Your task to perform on an android device: toggle javascript in the chrome app Image 0: 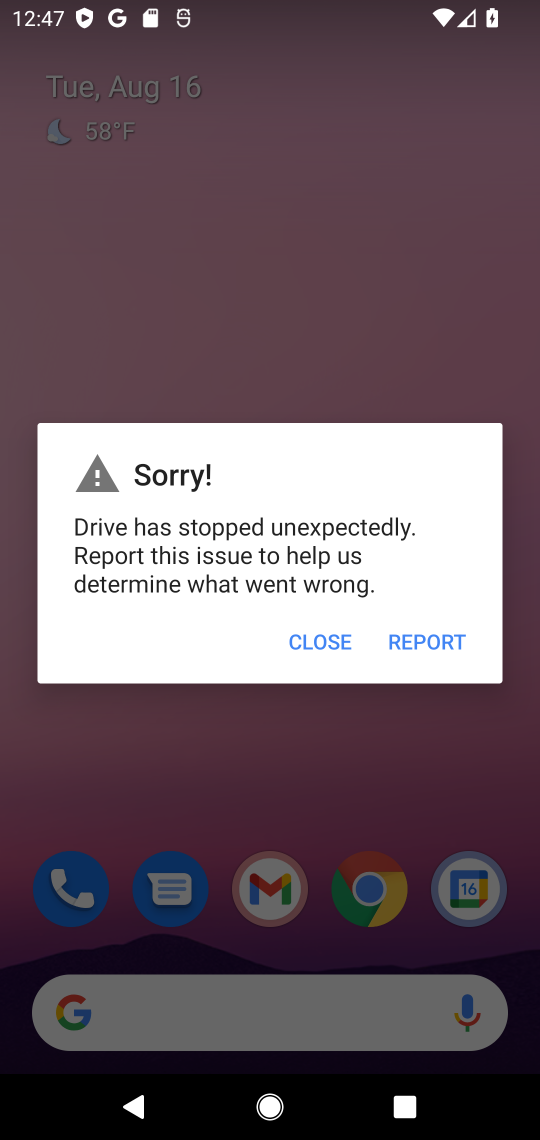
Step 0: click (322, 633)
Your task to perform on an android device: toggle javascript in the chrome app Image 1: 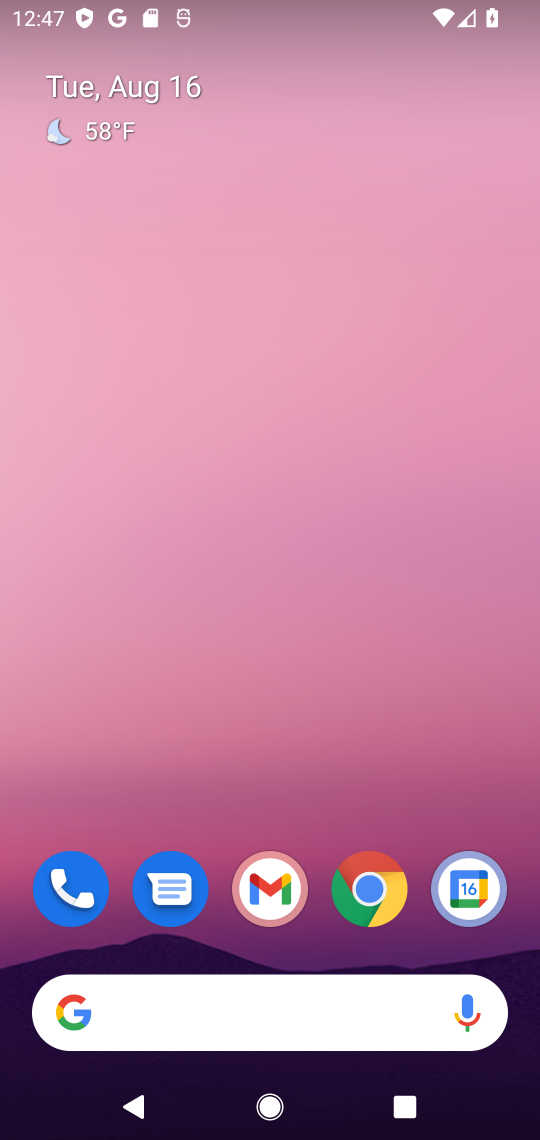
Step 1: drag from (236, 986) to (149, 85)
Your task to perform on an android device: toggle javascript in the chrome app Image 2: 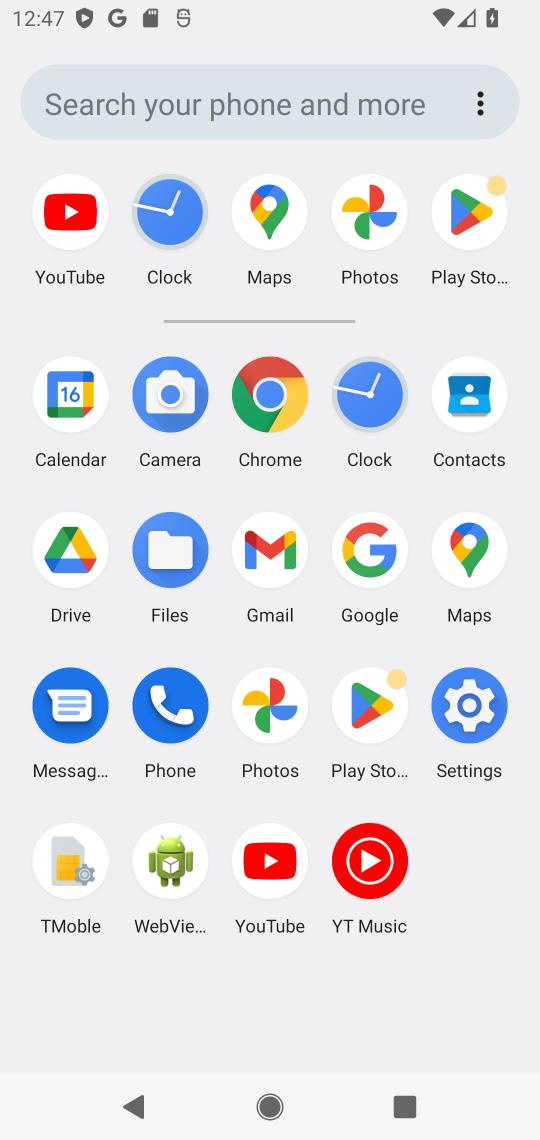
Step 2: click (257, 400)
Your task to perform on an android device: toggle javascript in the chrome app Image 3: 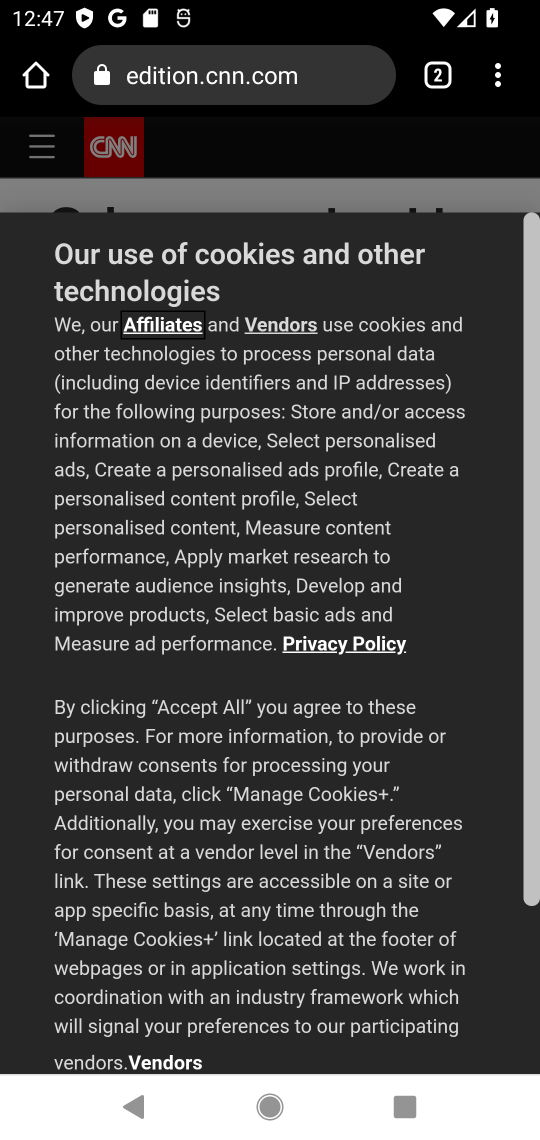
Step 3: drag from (490, 79) to (270, 911)
Your task to perform on an android device: toggle javascript in the chrome app Image 4: 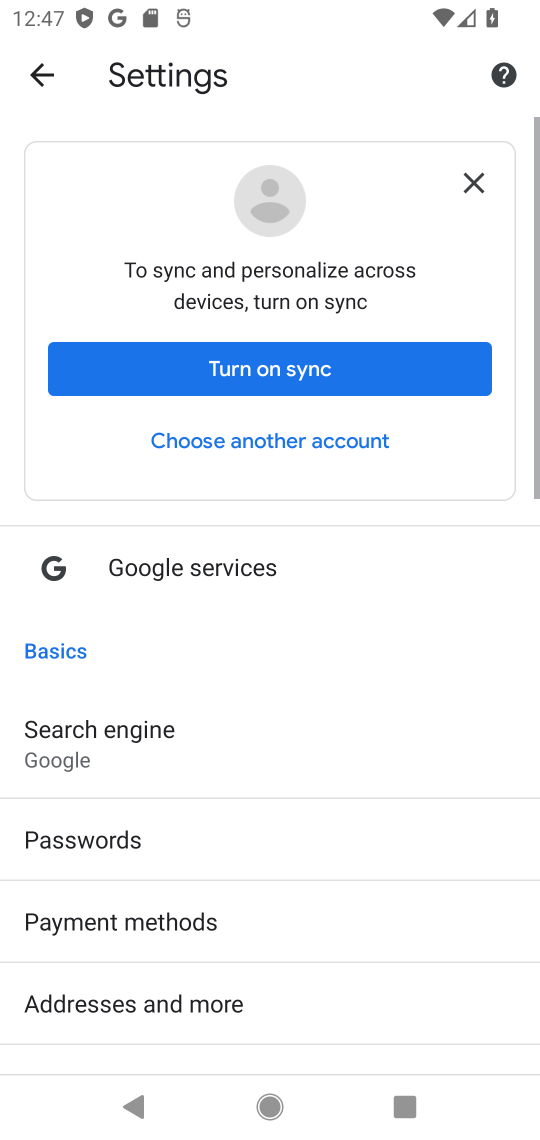
Step 4: drag from (246, 1055) to (288, 194)
Your task to perform on an android device: toggle javascript in the chrome app Image 5: 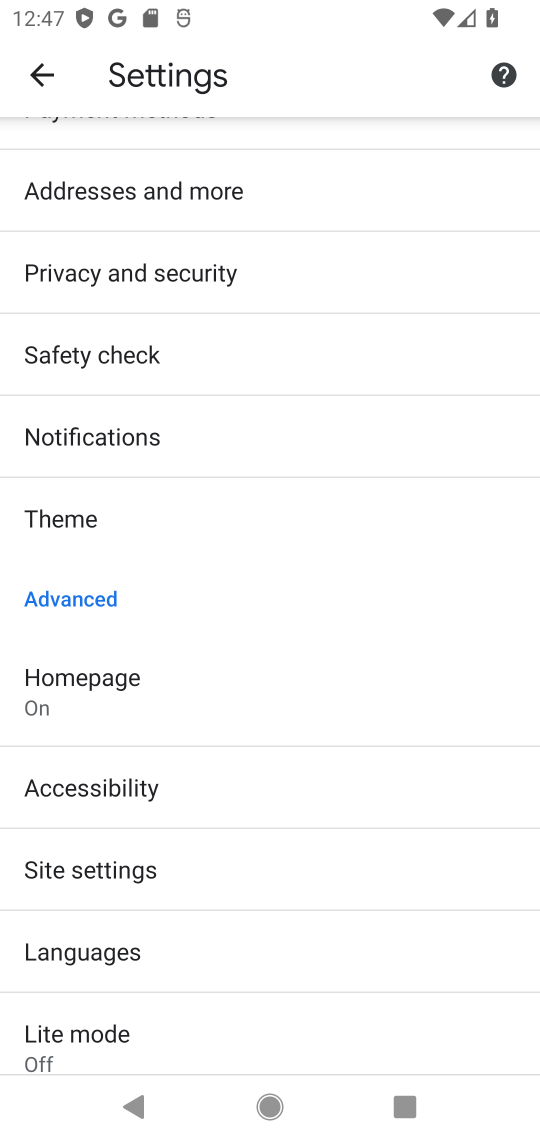
Step 5: click (118, 883)
Your task to perform on an android device: toggle javascript in the chrome app Image 6: 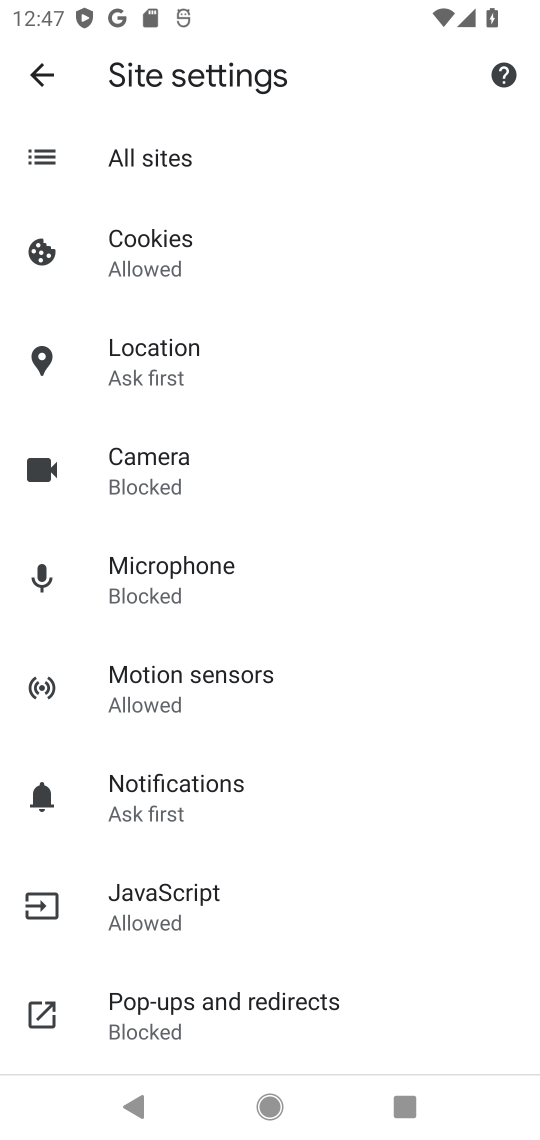
Step 6: drag from (230, 953) to (340, 376)
Your task to perform on an android device: toggle javascript in the chrome app Image 7: 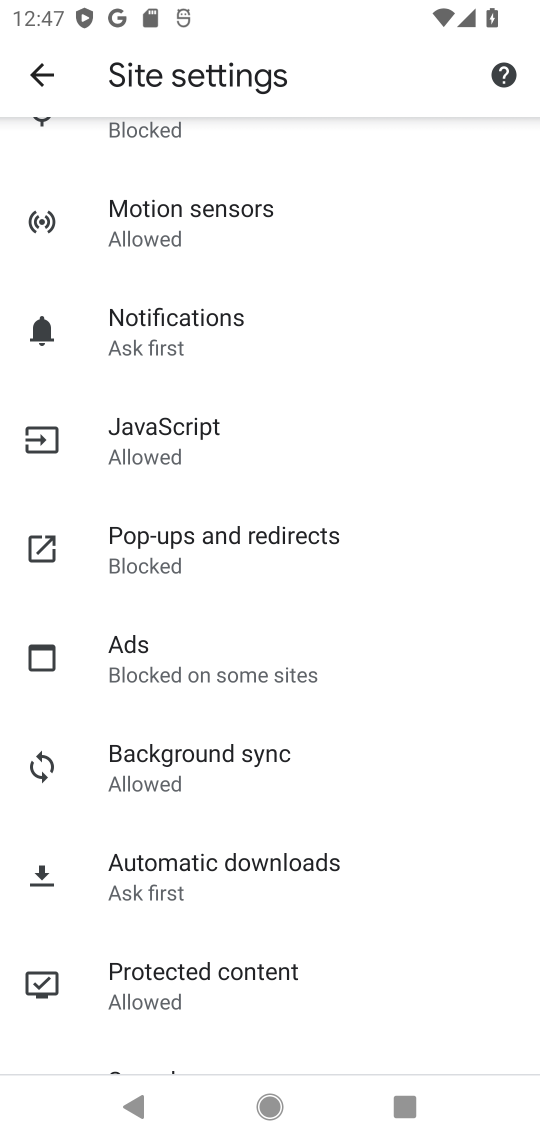
Step 7: click (155, 438)
Your task to perform on an android device: toggle javascript in the chrome app Image 8: 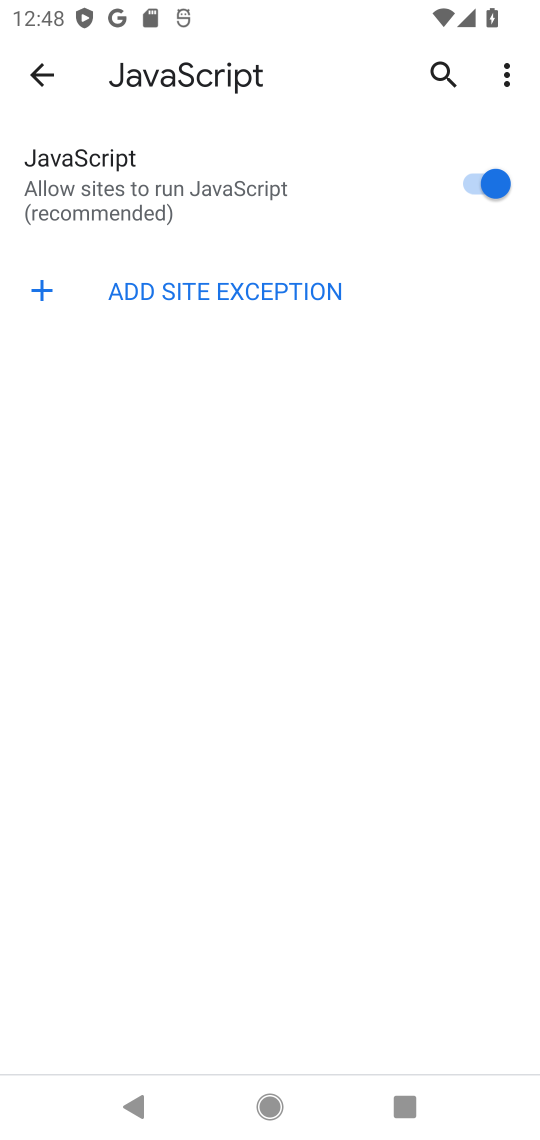
Step 8: click (473, 197)
Your task to perform on an android device: toggle javascript in the chrome app Image 9: 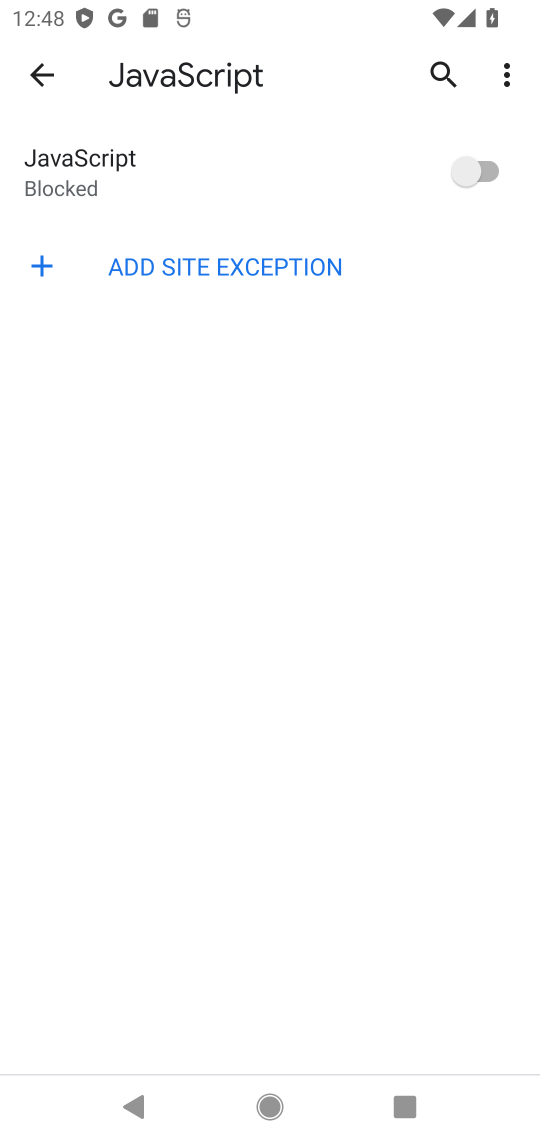
Step 9: task complete